Your task to perform on an android device: change keyboard looks Image 0: 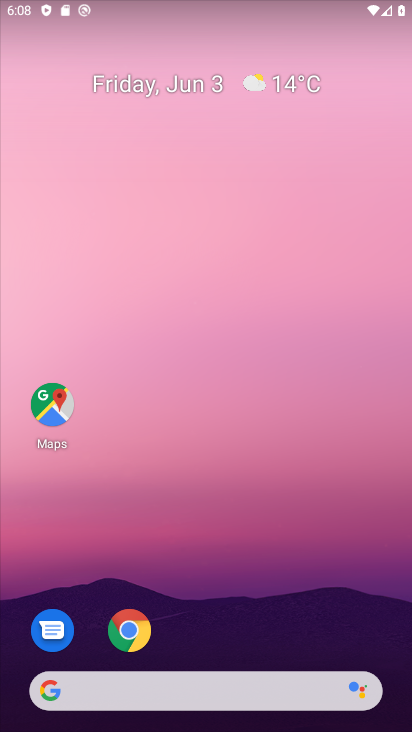
Step 0: drag from (216, 496) to (226, 186)
Your task to perform on an android device: change keyboard looks Image 1: 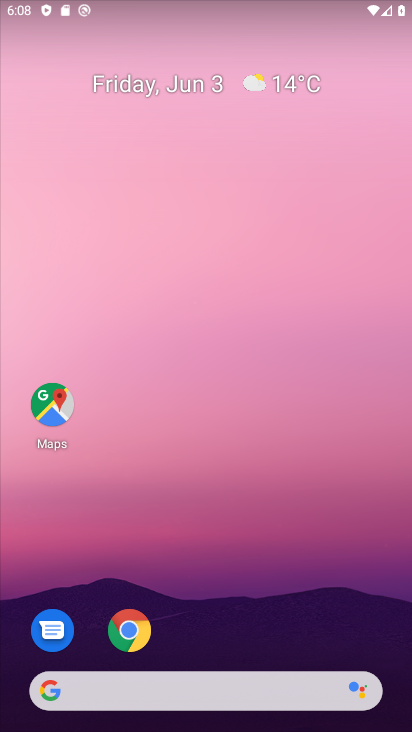
Step 1: drag from (221, 589) to (224, 226)
Your task to perform on an android device: change keyboard looks Image 2: 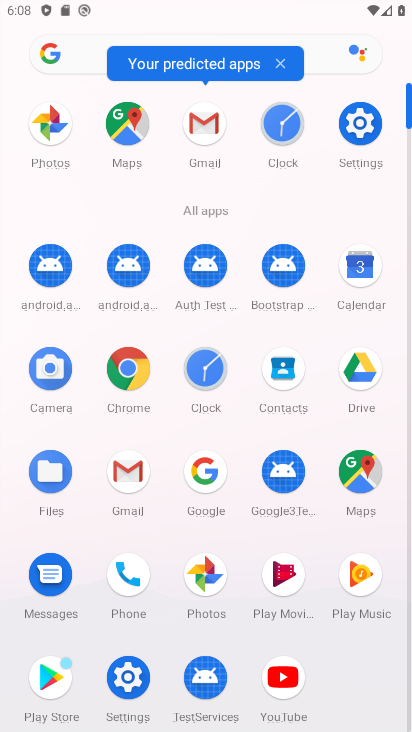
Step 2: click (362, 128)
Your task to perform on an android device: change keyboard looks Image 3: 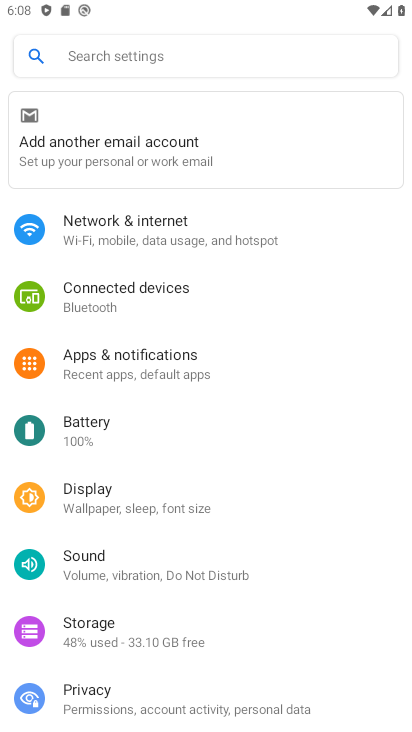
Step 3: drag from (189, 655) to (204, 387)
Your task to perform on an android device: change keyboard looks Image 4: 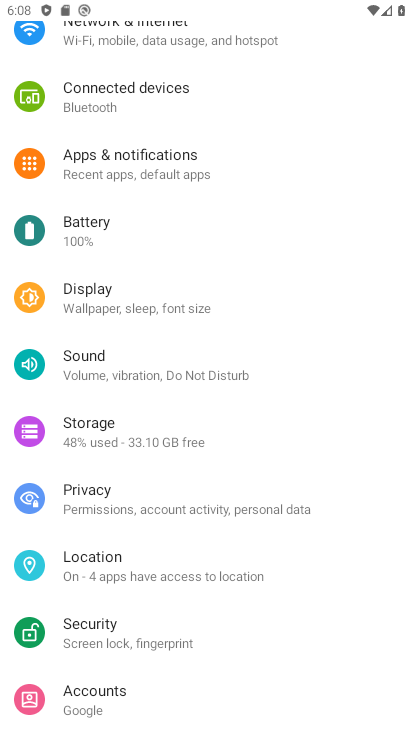
Step 4: drag from (176, 632) to (187, 253)
Your task to perform on an android device: change keyboard looks Image 5: 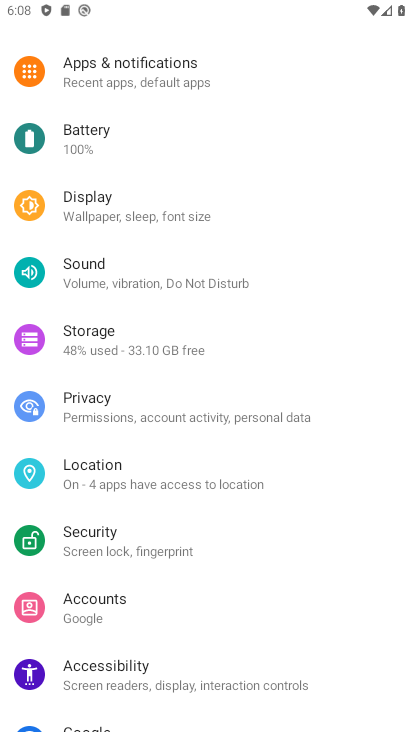
Step 5: drag from (191, 611) to (198, 237)
Your task to perform on an android device: change keyboard looks Image 6: 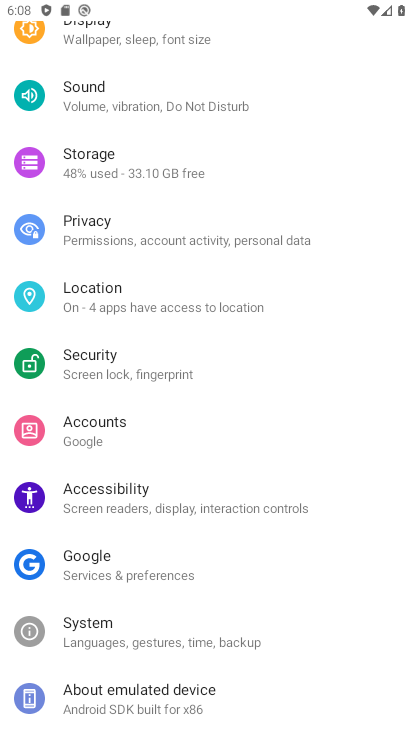
Step 6: drag from (189, 574) to (198, 232)
Your task to perform on an android device: change keyboard looks Image 7: 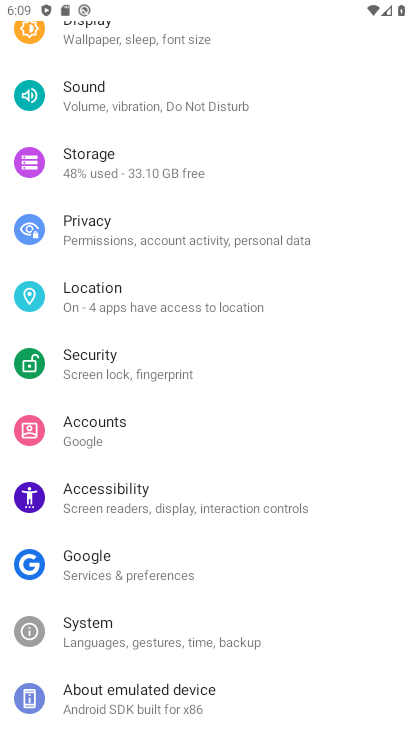
Step 7: click (124, 658)
Your task to perform on an android device: change keyboard looks Image 8: 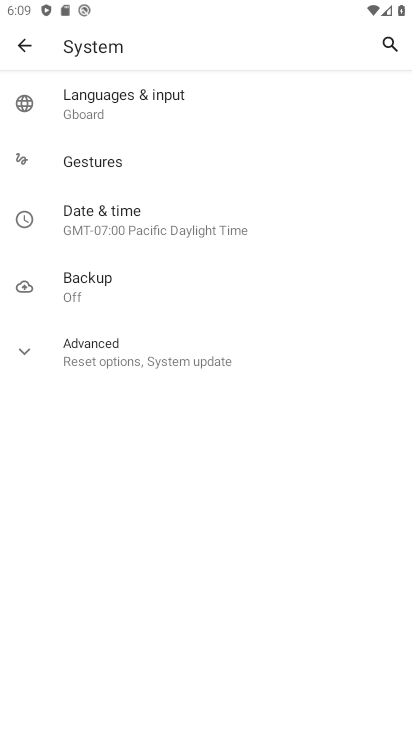
Step 8: click (106, 119)
Your task to perform on an android device: change keyboard looks Image 9: 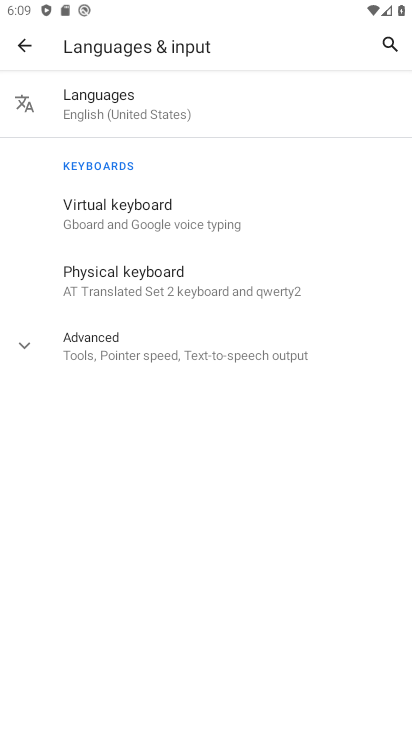
Step 9: click (116, 106)
Your task to perform on an android device: change keyboard looks Image 10: 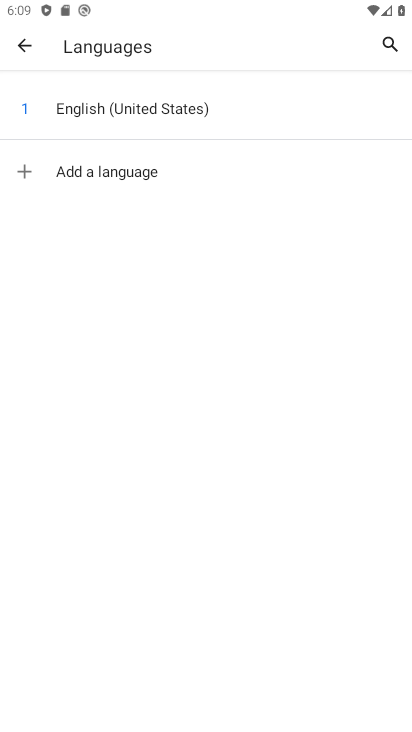
Step 10: click (18, 45)
Your task to perform on an android device: change keyboard looks Image 11: 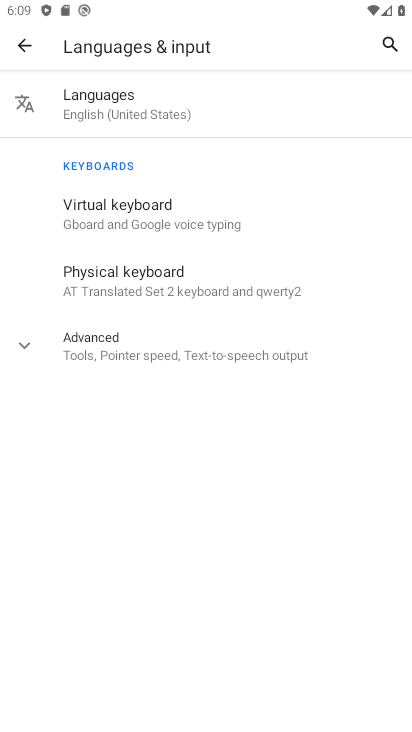
Step 11: click (117, 226)
Your task to perform on an android device: change keyboard looks Image 12: 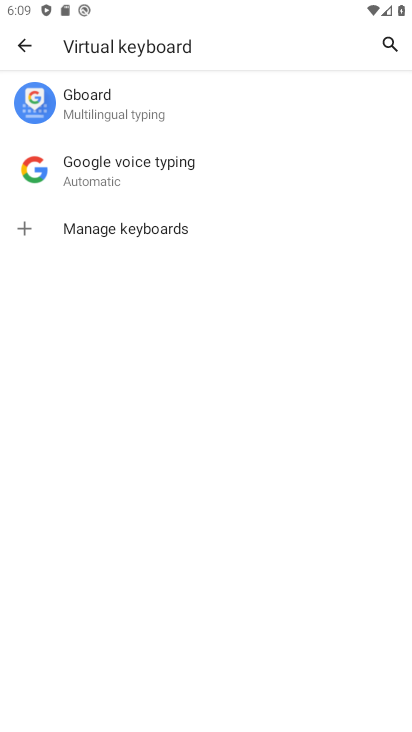
Step 12: click (93, 114)
Your task to perform on an android device: change keyboard looks Image 13: 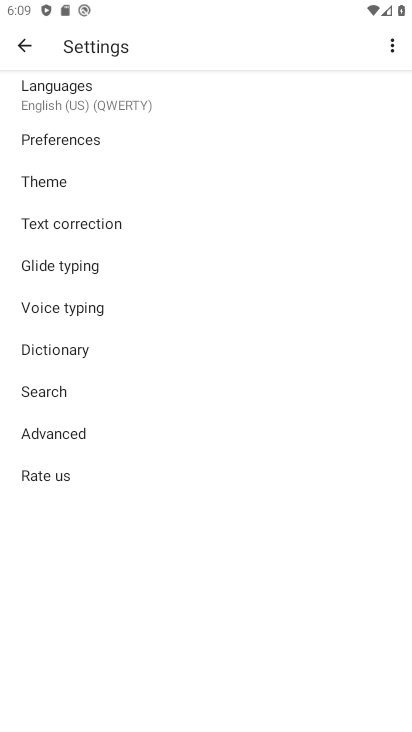
Step 13: click (60, 183)
Your task to perform on an android device: change keyboard looks Image 14: 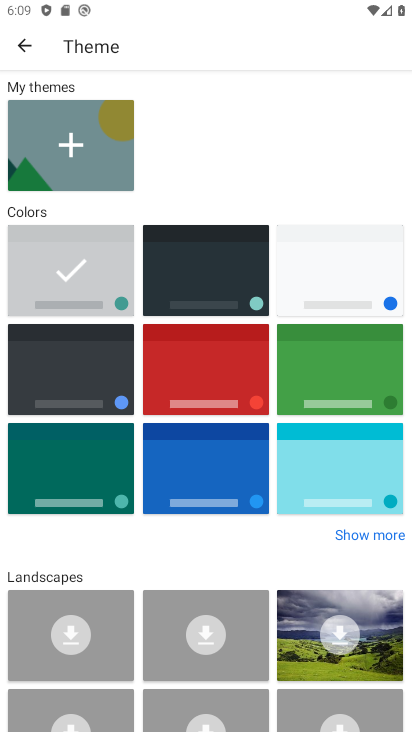
Step 14: click (193, 263)
Your task to perform on an android device: change keyboard looks Image 15: 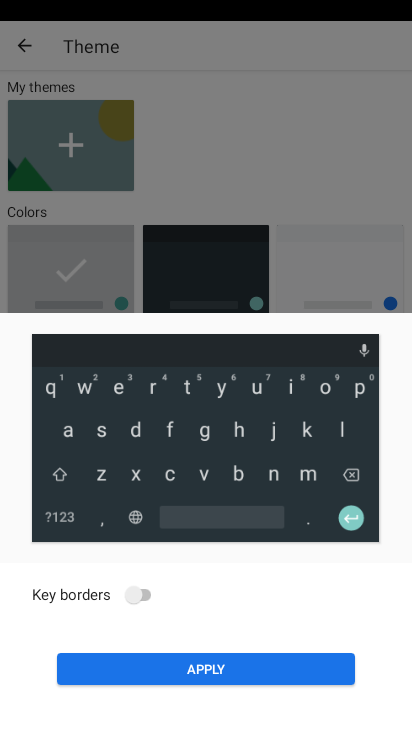
Step 15: click (188, 675)
Your task to perform on an android device: change keyboard looks Image 16: 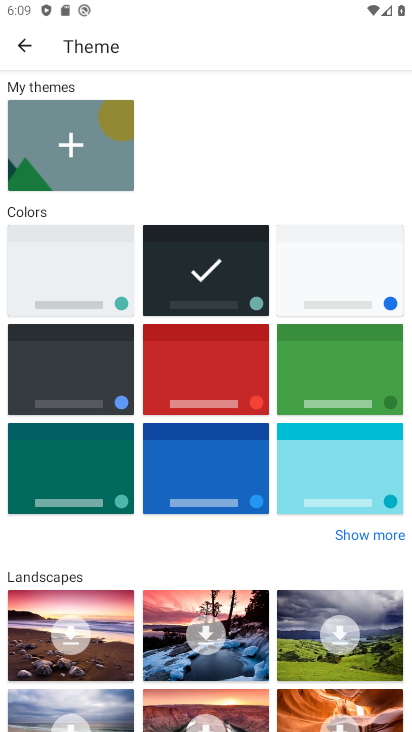
Step 16: task complete